Your task to perform on an android device: What's the weather today? Image 0: 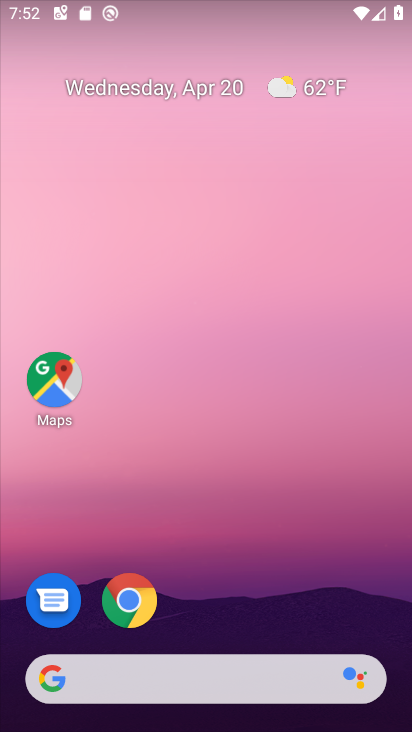
Step 0: click (302, 86)
Your task to perform on an android device: What's the weather today? Image 1: 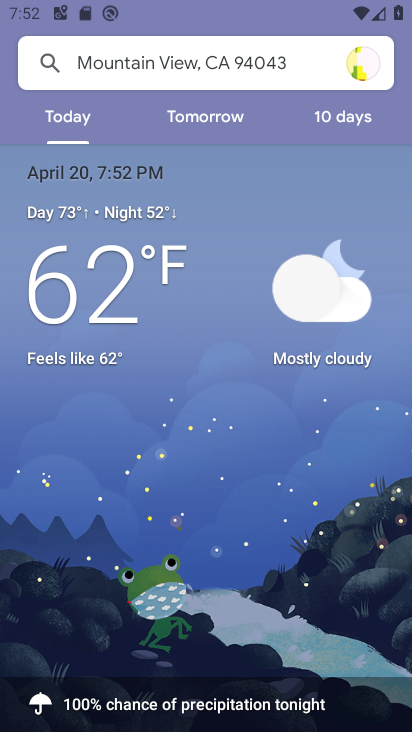
Step 1: task complete